Your task to perform on an android device: toggle show notifications on the lock screen Image 0: 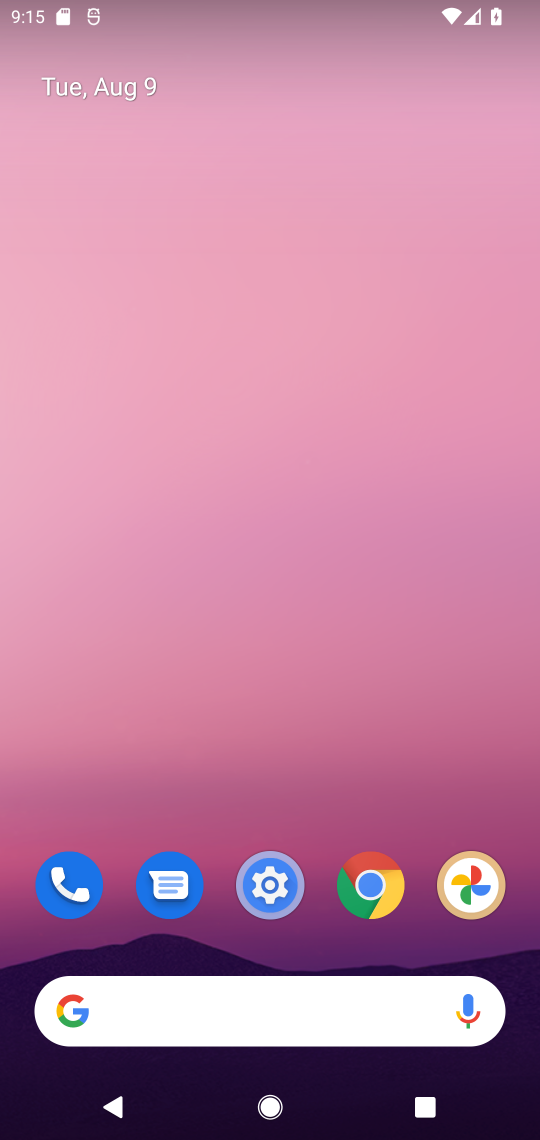
Step 0: click (282, 896)
Your task to perform on an android device: toggle show notifications on the lock screen Image 1: 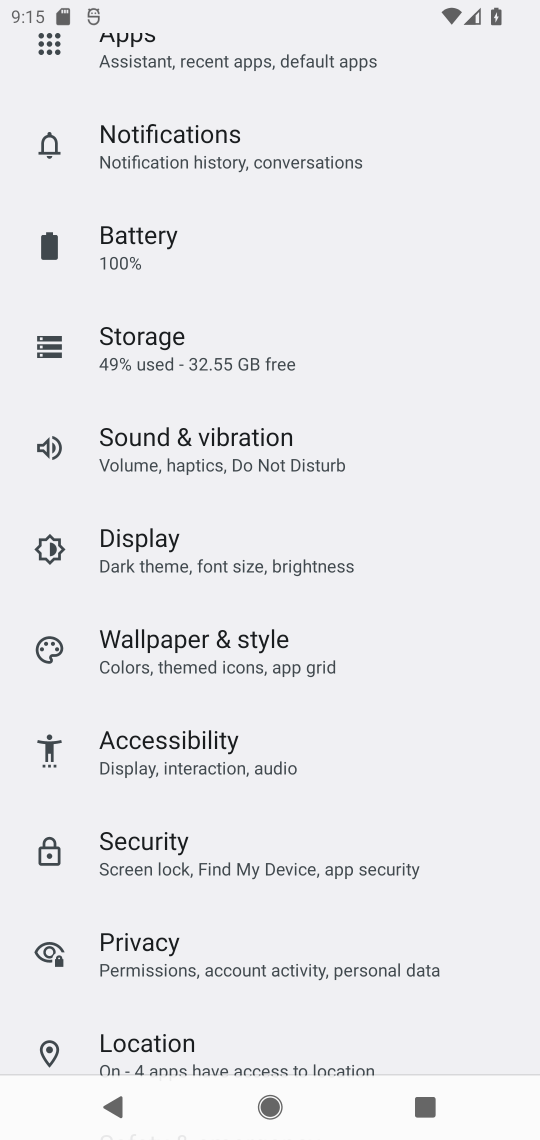
Step 1: click (211, 174)
Your task to perform on an android device: toggle show notifications on the lock screen Image 2: 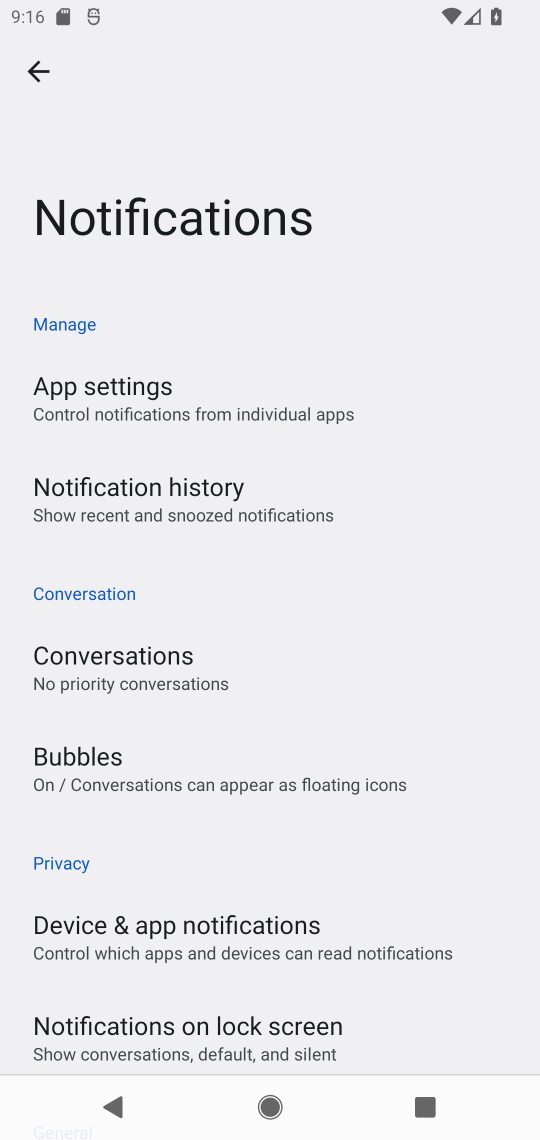
Step 2: drag from (212, 873) to (231, 292)
Your task to perform on an android device: toggle show notifications on the lock screen Image 3: 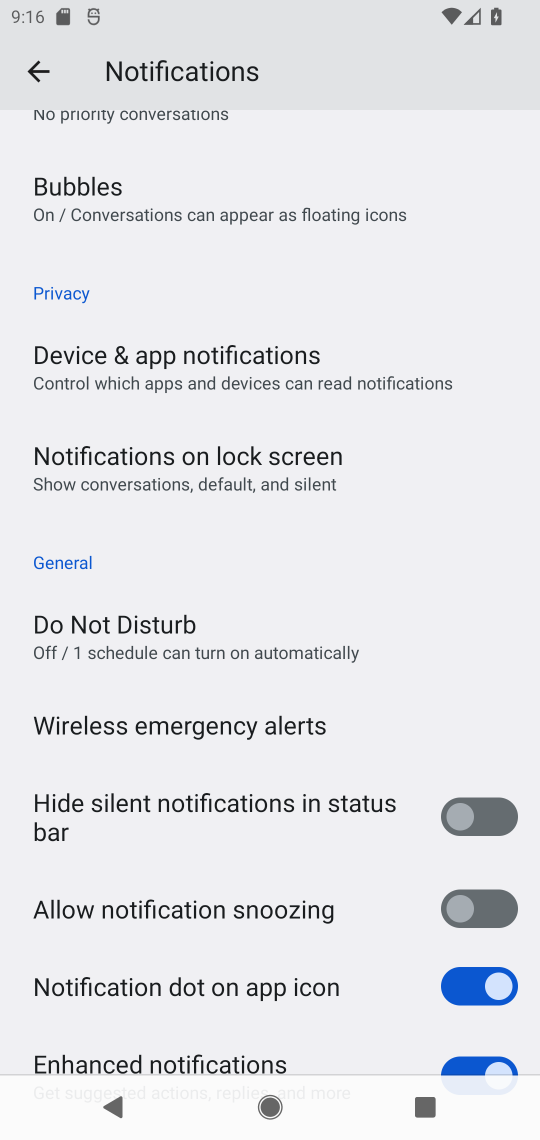
Step 3: click (302, 473)
Your task to perform on an android device: toggle show notifications on the lock screen Image 4: 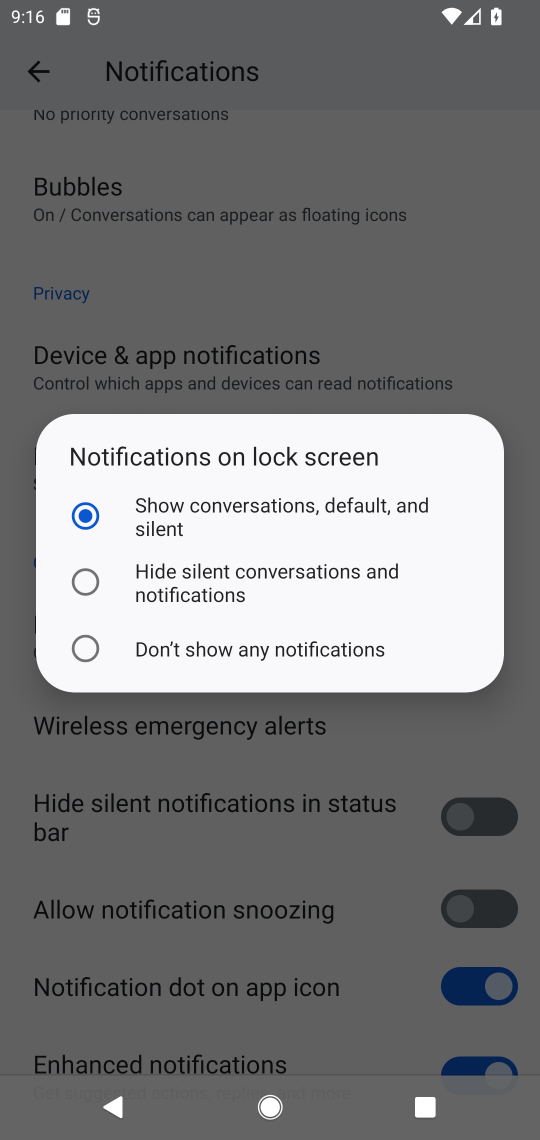
Step 4: click (273, 510)
Your task to perform on an android device: toggle show notifications on the lock screen Image 5: 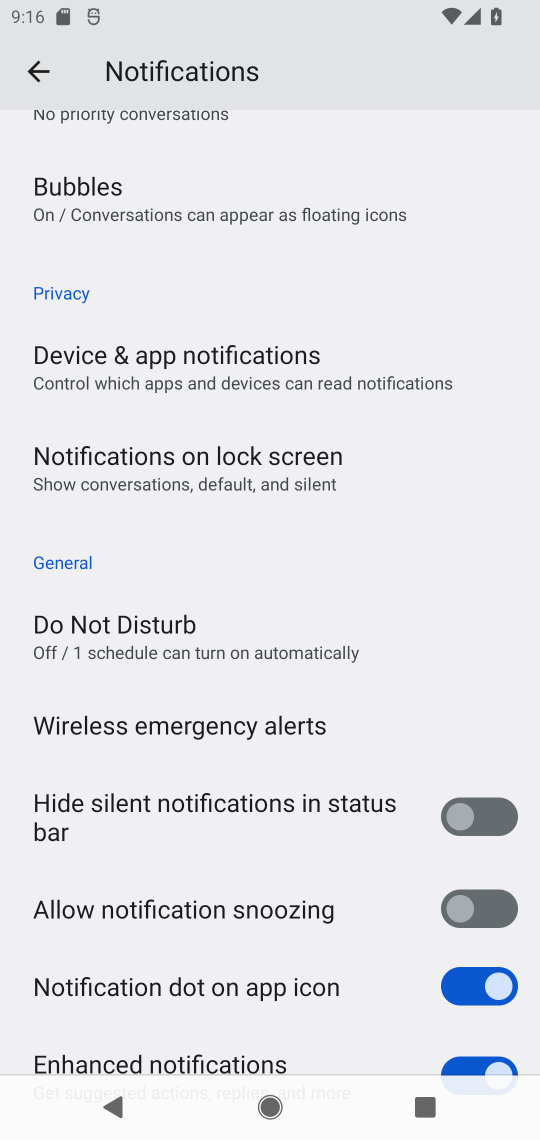
Step 5: task complete